Your task to perform on an android device: uninstall "DoorDash - Dasher" Image 0: 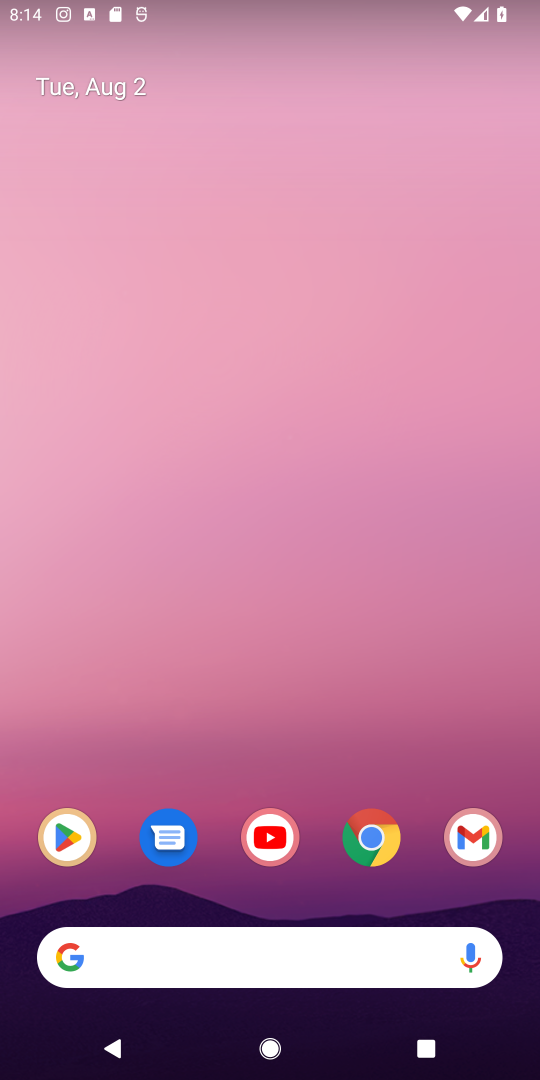
Step 0: click (74, 836)
Your task to perform on an android device: uninstall "DoorDash - Dasher" Image 1: 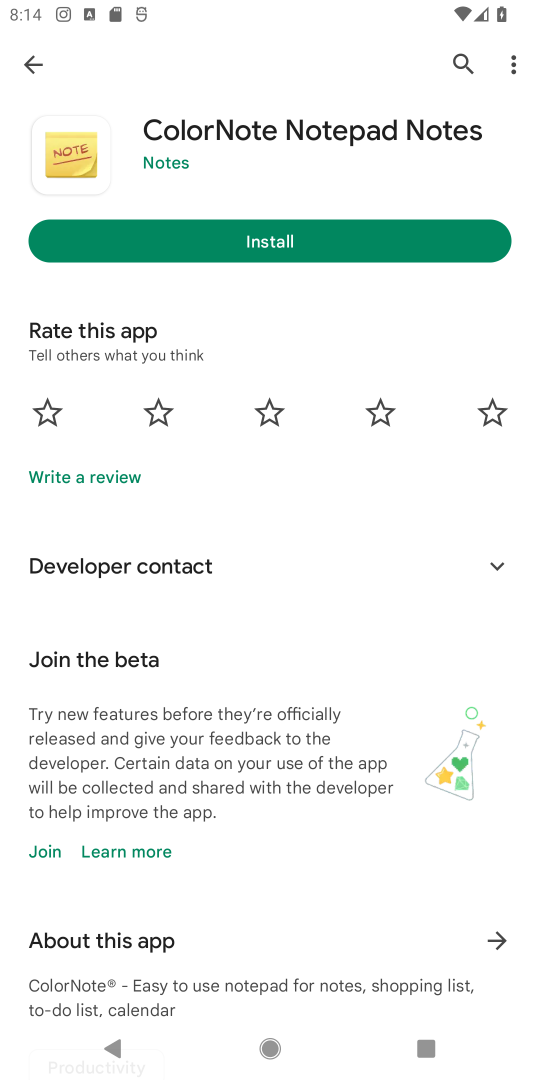
Step 1: click (471, 62)
Your task to perform on an android device: uninstall "DoorDash - Dasher" Image 2: 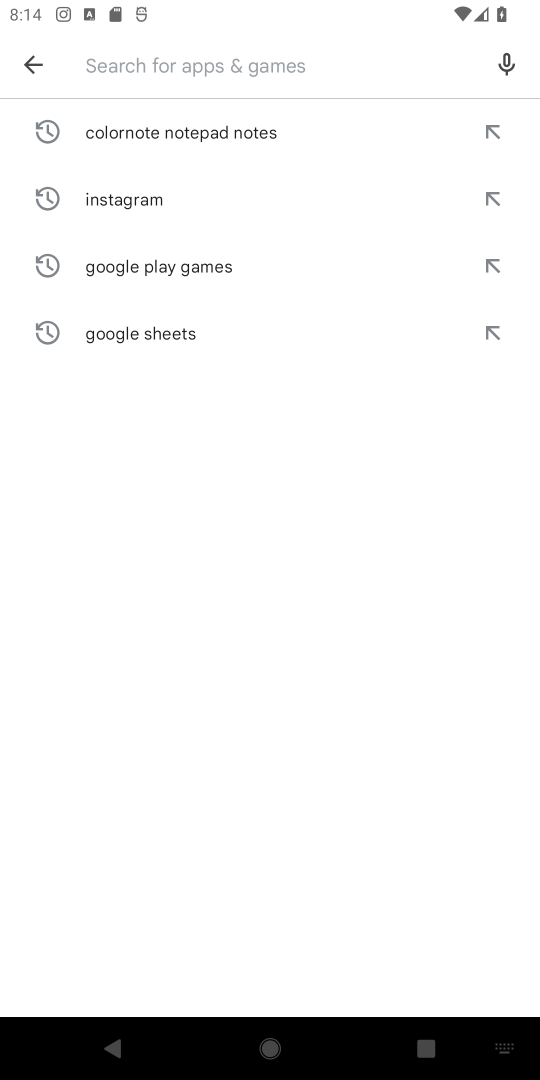
Step 2: type "DoorDash - Dasher"
Your task to perform on an android device: uninstall "DoorDash - Dasher" Image 3: 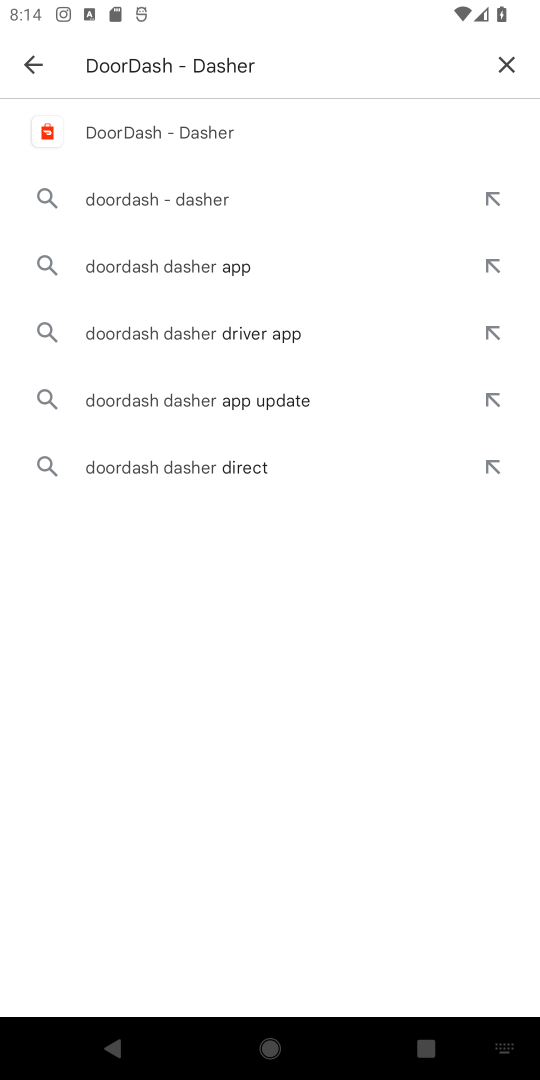
Step 3: click (150, 133)
Your task to perform on an android device: uninstall "DoorDash - Dasher" Image 4: 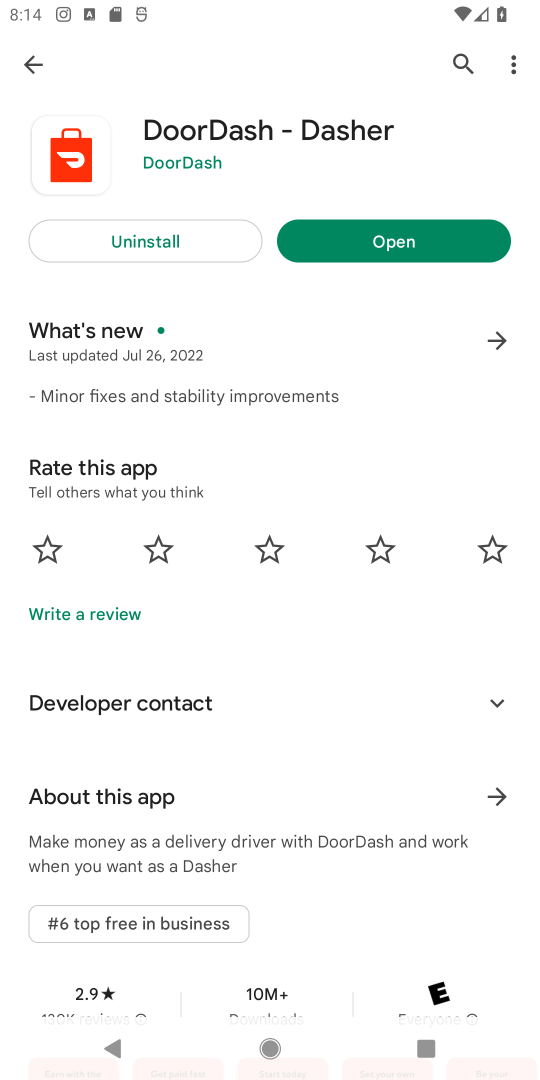
Step 4: click (130, 234)
Your task to perform on an android device: uninstall "DoorDash - Dasher" Image 5: 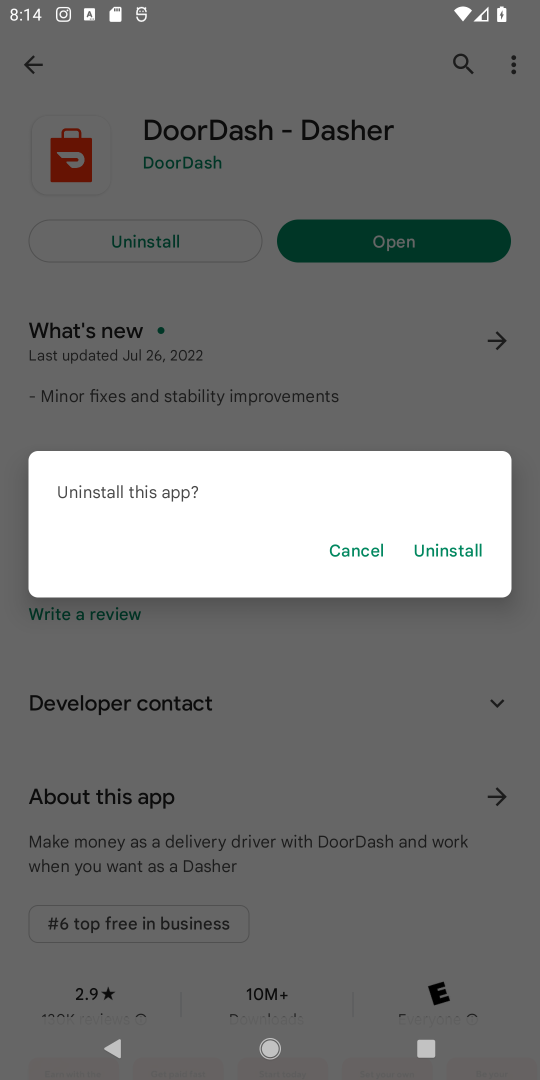
Step 5: click (453, 551)
Your task to perform on an android device: uninstall "DoorDash - Dasher" Image 6: 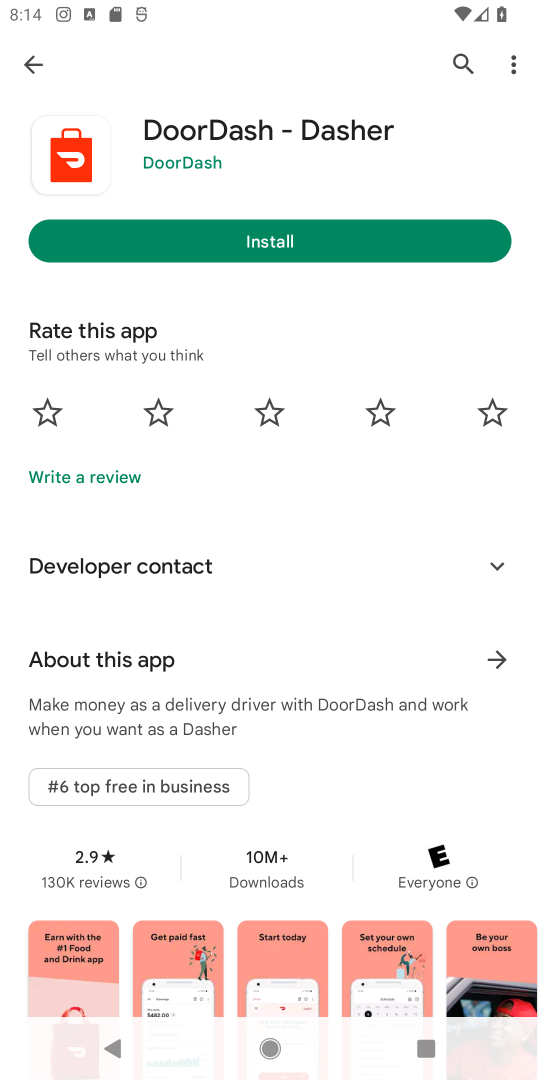
Step 6: task complete